Your task to perform on an android device: clear all cookies in the chrome app Image 0: 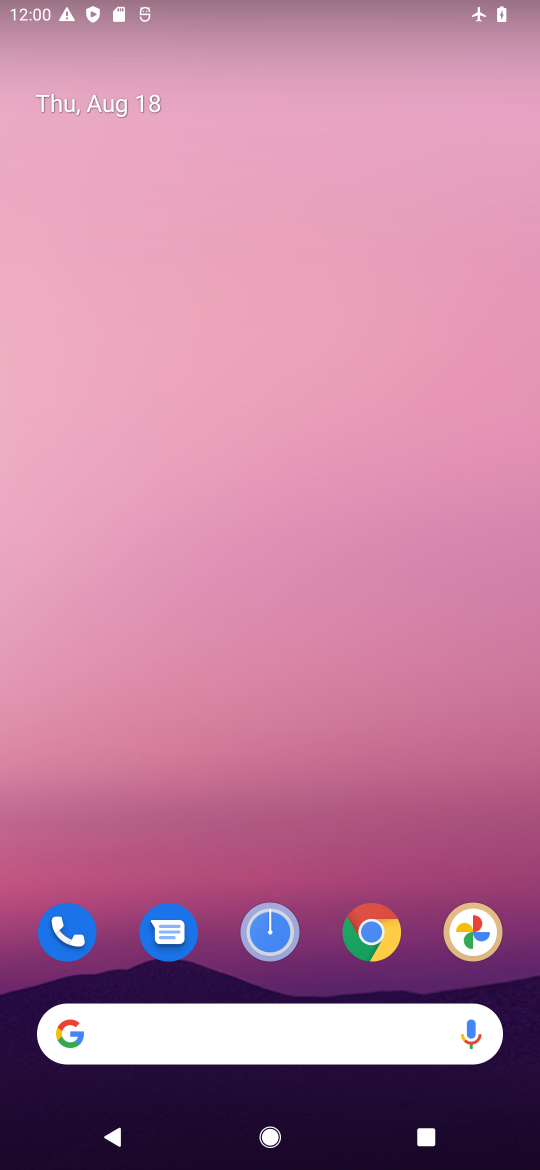
Step 0: click (366, 923)
Your task to perform on an android device: clear all cookies in the chrome app Image 1: 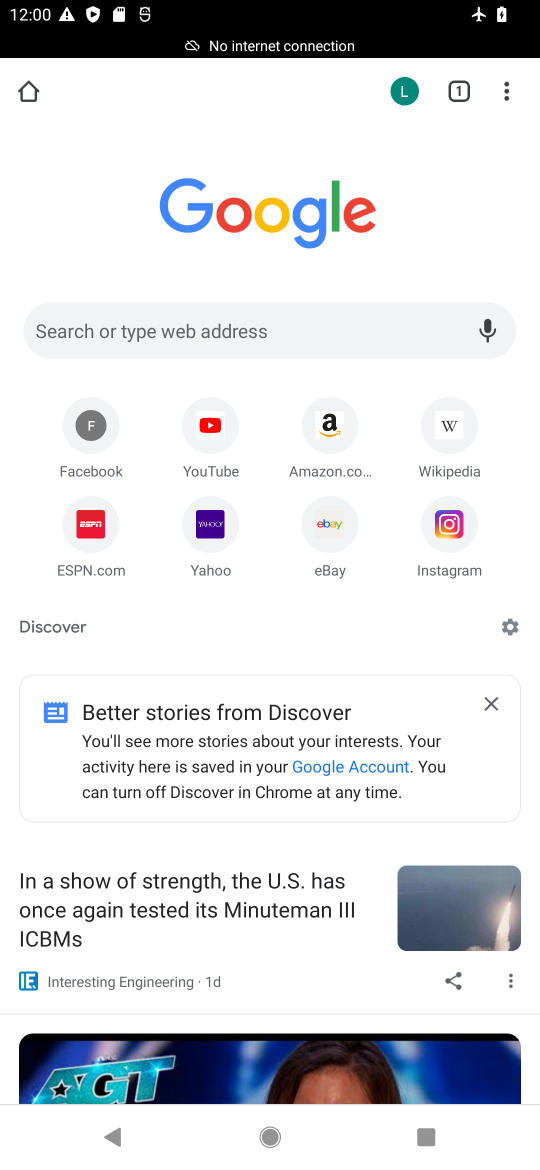
Step 1: click (493, 81)
Your task to perform on an android device: clear all cookies in the chrome app Image 2: 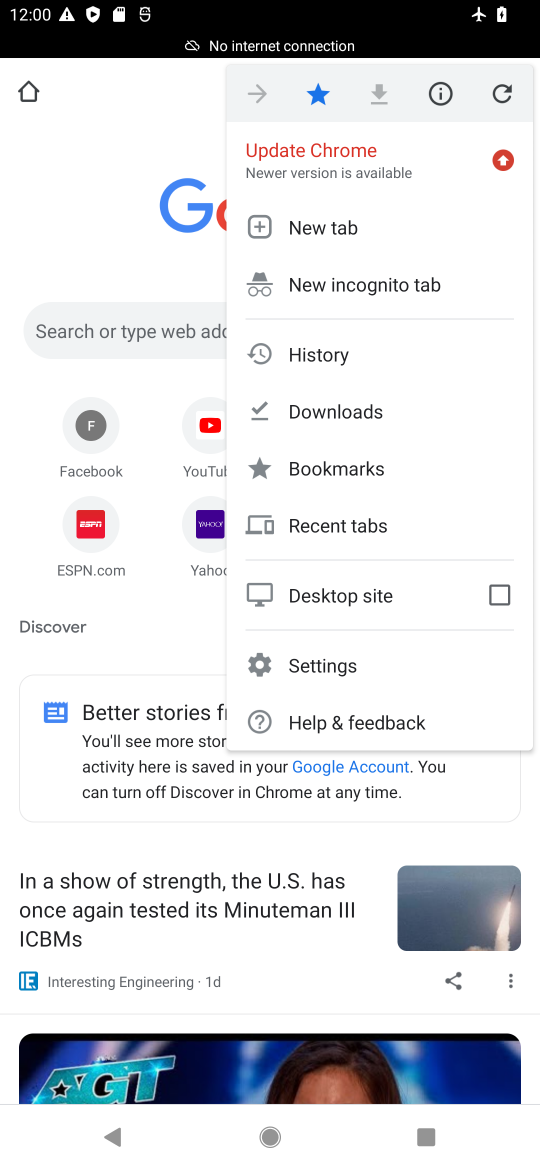
Step 2: click (314, 346)
Your task to perform on an android device: clear all cookies in the chrome app Image 3: 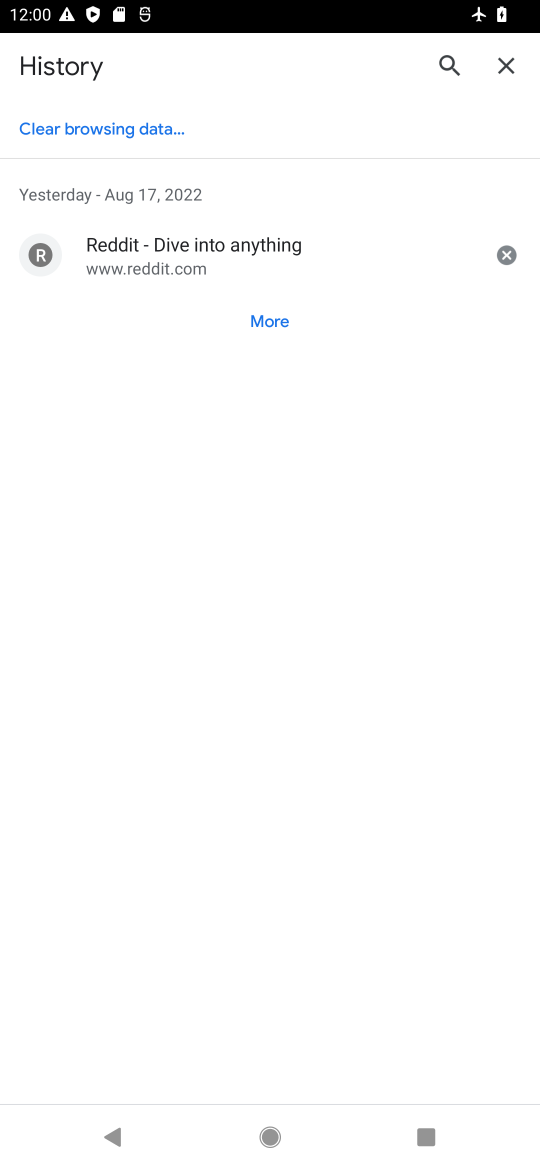
Step 3: click (124, 120)
Your task to perform on an android device: clear all cookies in the chrome app Image 4: 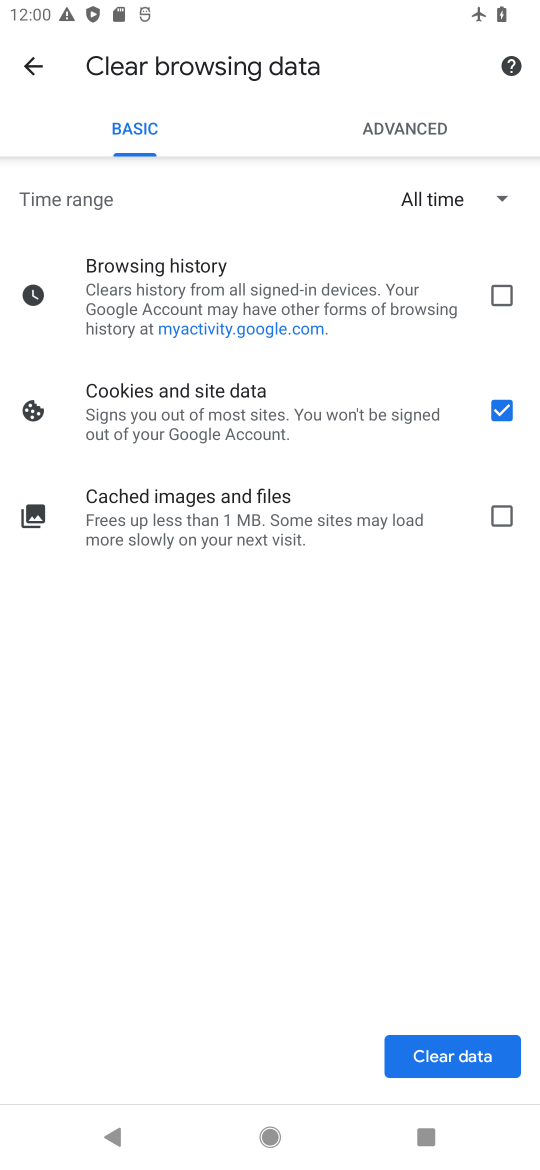
Step 4: click (451, 1051)
Your task to perform on an android device: clear all cookies in the chrome app Image 5: 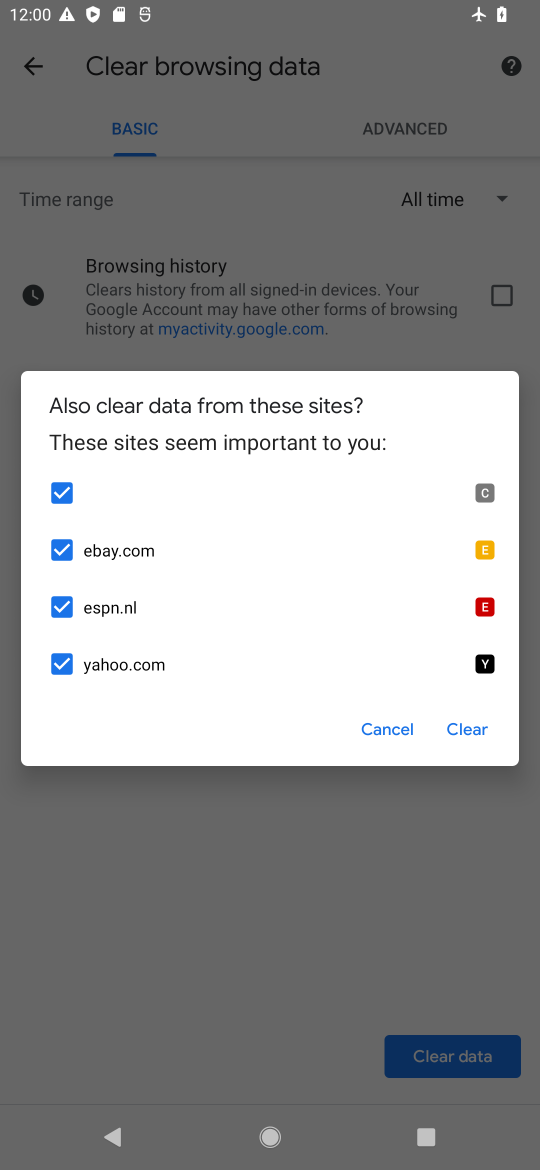
Step 5: click (469, 729)
Your task to perform on an android device: clear all cookies in the chrome app Image 6: 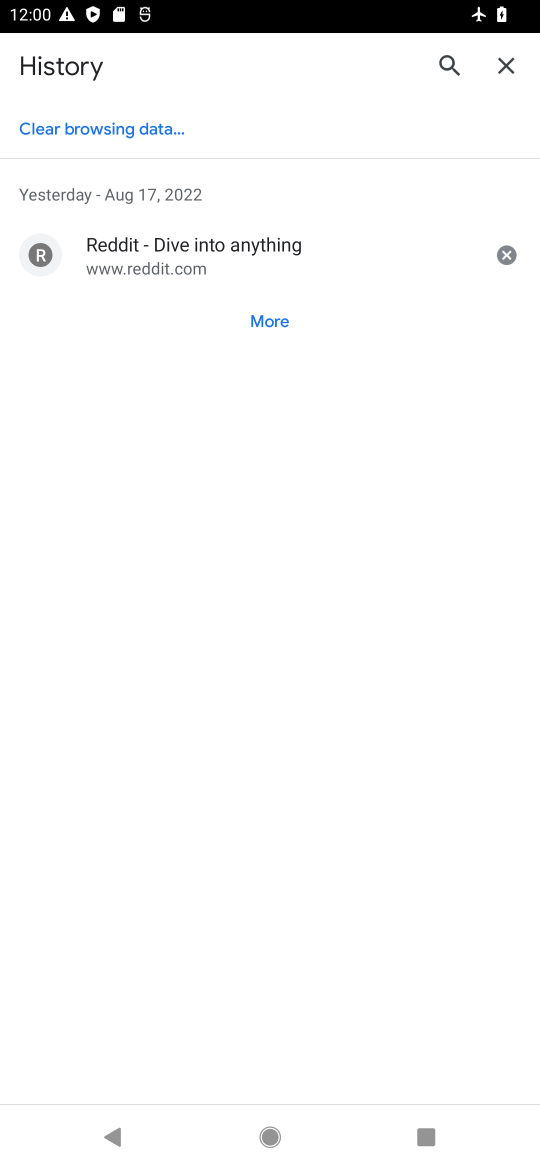
Step 6: task complete